Your task to perform on an android device: Go to battery settings Image 0: 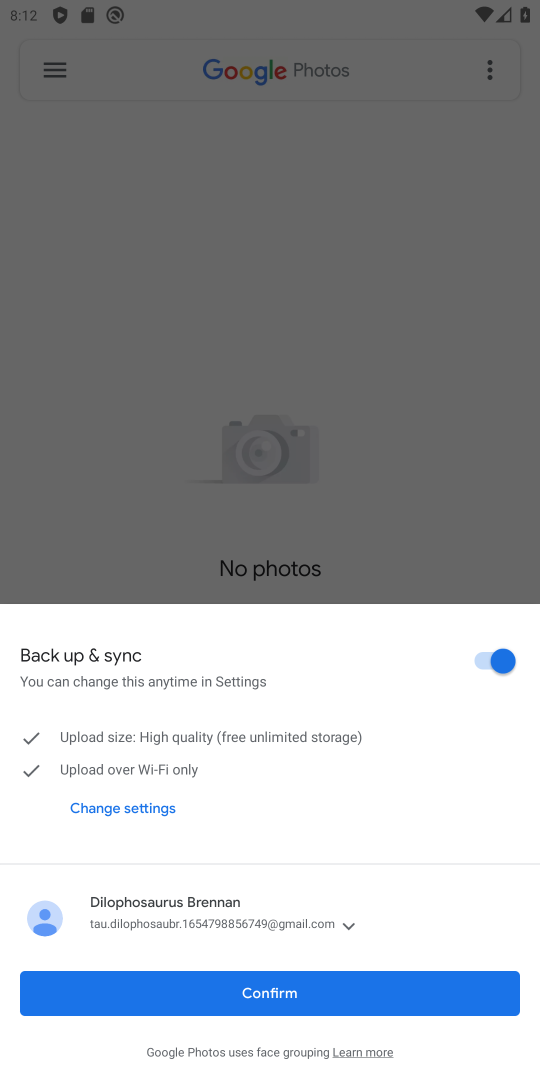
Step 0: press home button
Your task to perform on an android device: Go to battery settings Image 1: 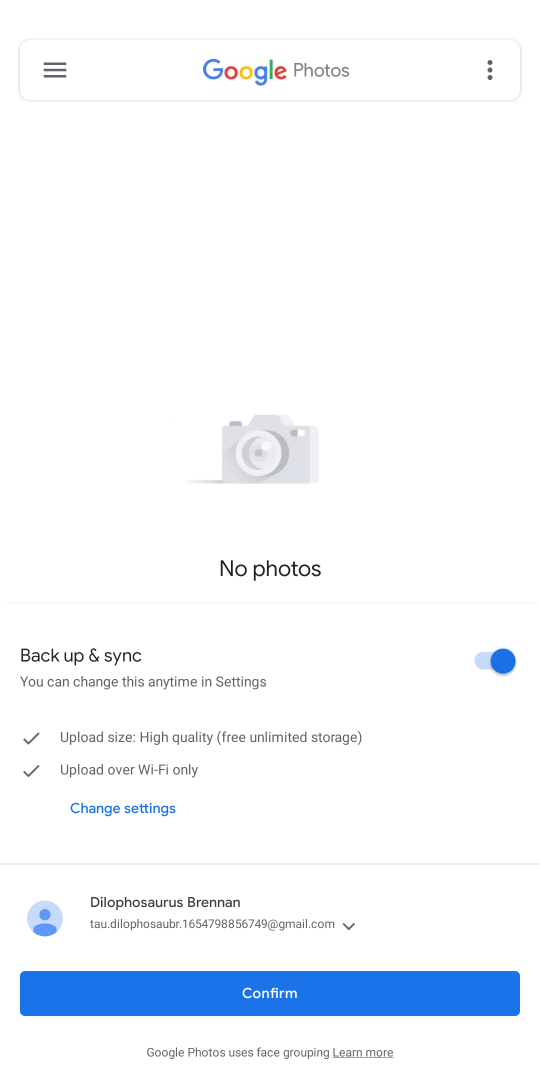
Step 1: drag from (323, 822) to (427, 285)
Your task to perform on an android device: Go to battery settings Image 2: 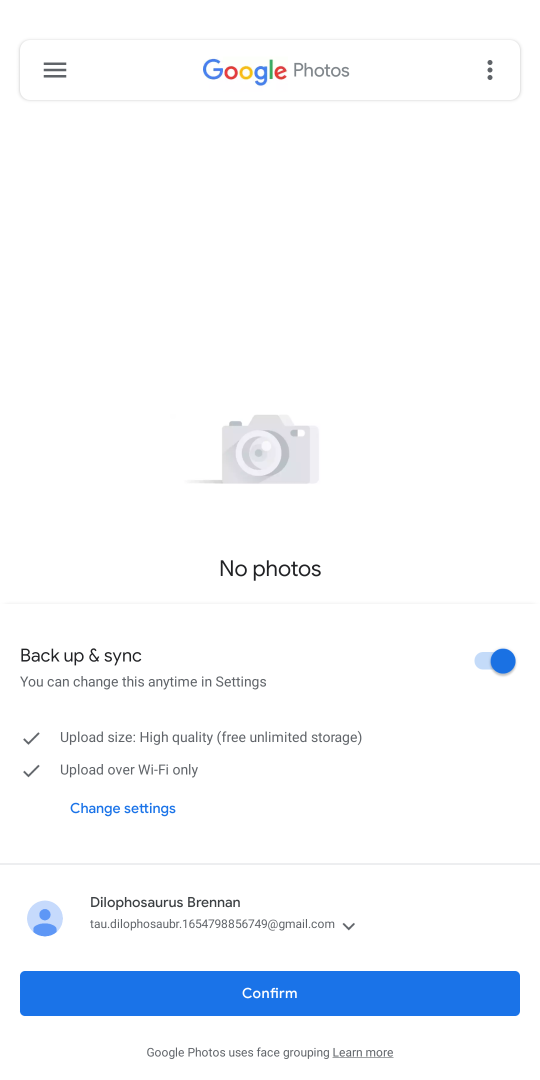
Step 2: drag from (285, 908) to (374, 306)
Your task to perform on an android device: Go to battery settings Image 3: 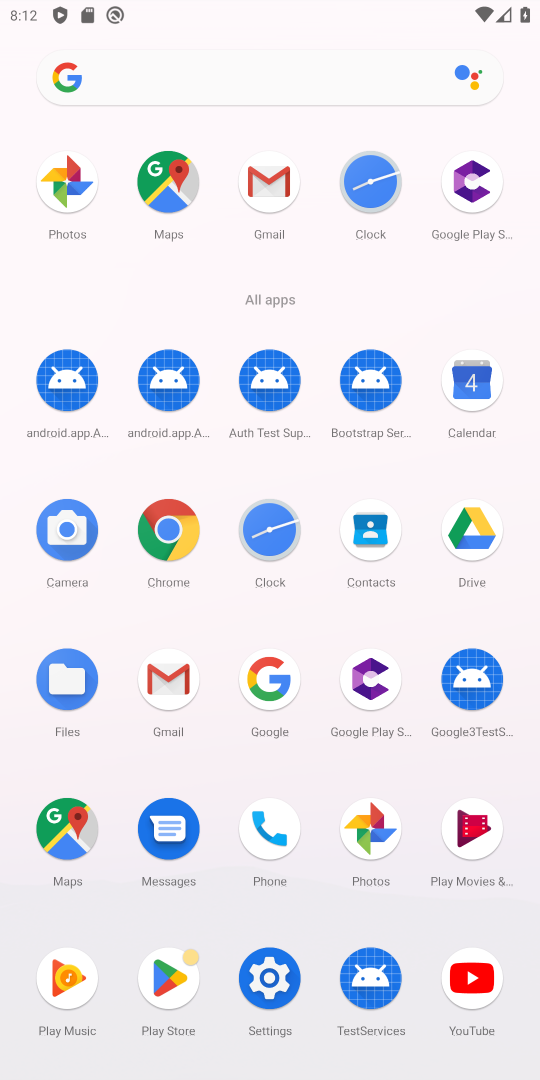
Step 3: drag from (261, 920) to (386, 246)
Your task to perform on an android device: Go to battery settings Image 4: 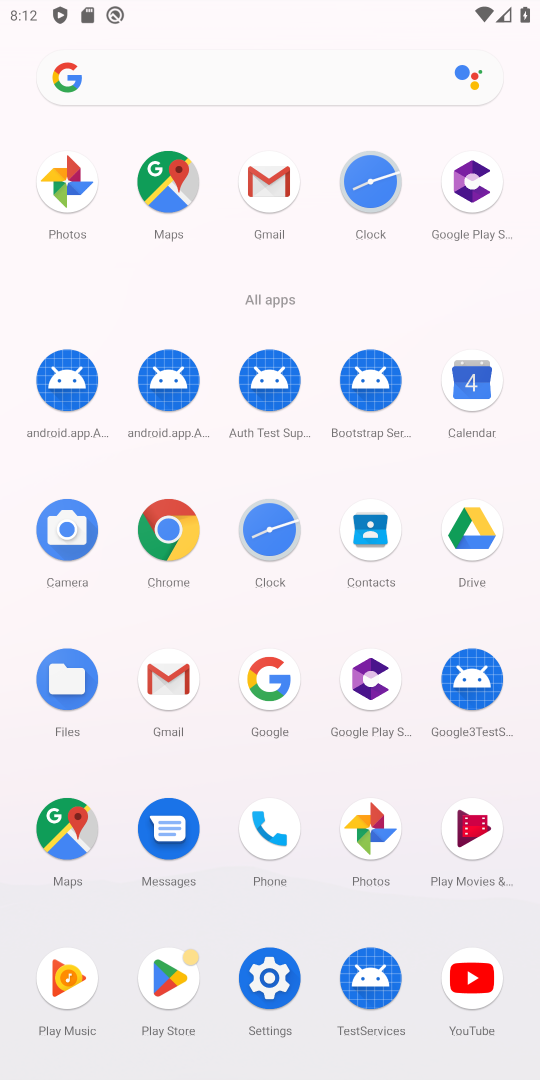
Step 4: click (274, 979)
Your task to perform on an android device: Go to battery settings Image 5: 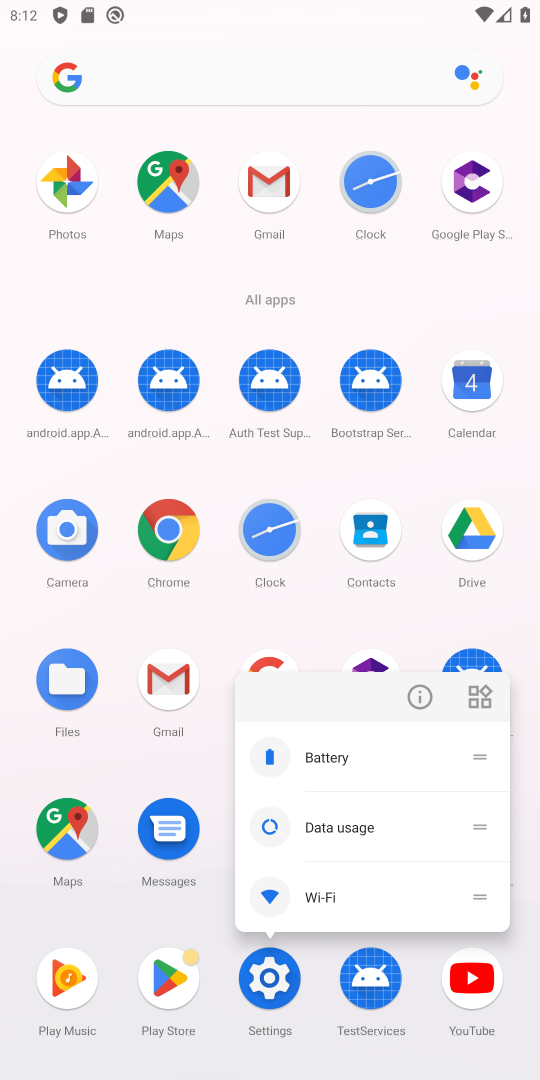
Step 5: click (414, 702)
Your task to perform on an android device: Go to battery settings Image 6: 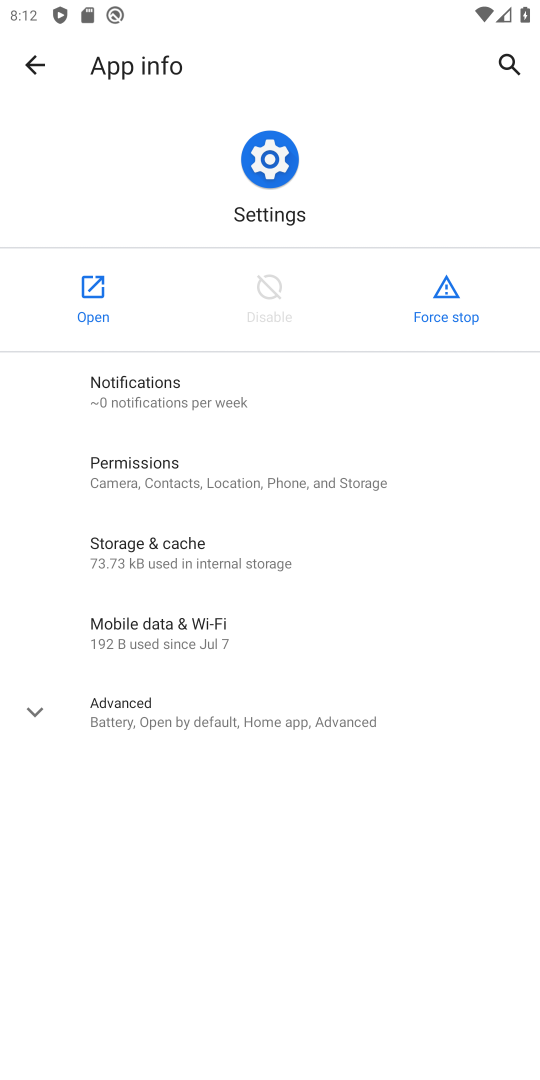
Step 6: click (89, 314)
Your task to perform on an android device: Go to battery settings Image 7: 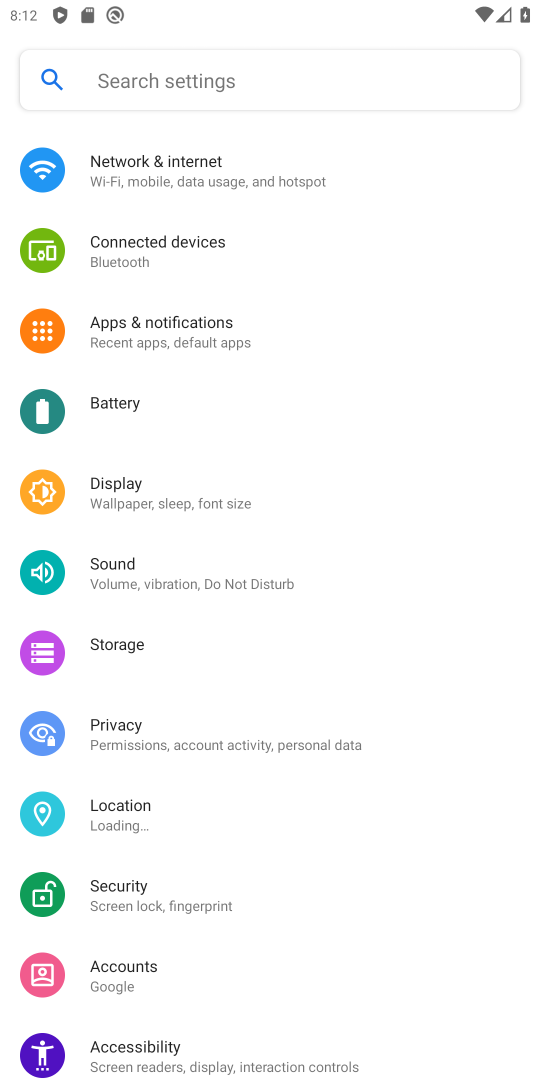
Step 7: click (142, 402)
Your task to perform on an android device: Go to battery settings Image 8: 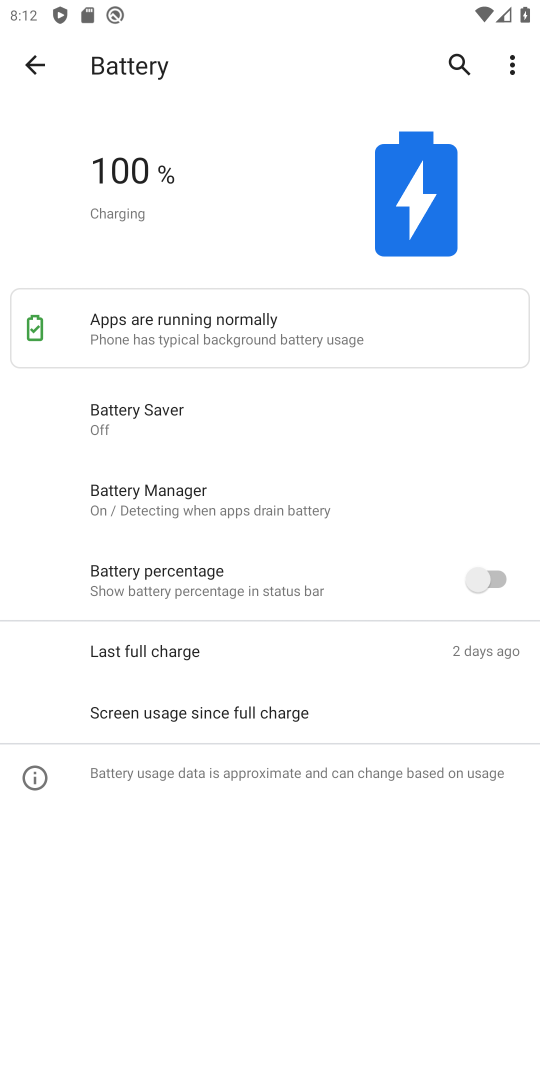
Step 8: click (116, 405)
Your task to perform on an android device: Go to battery settings Image 9: 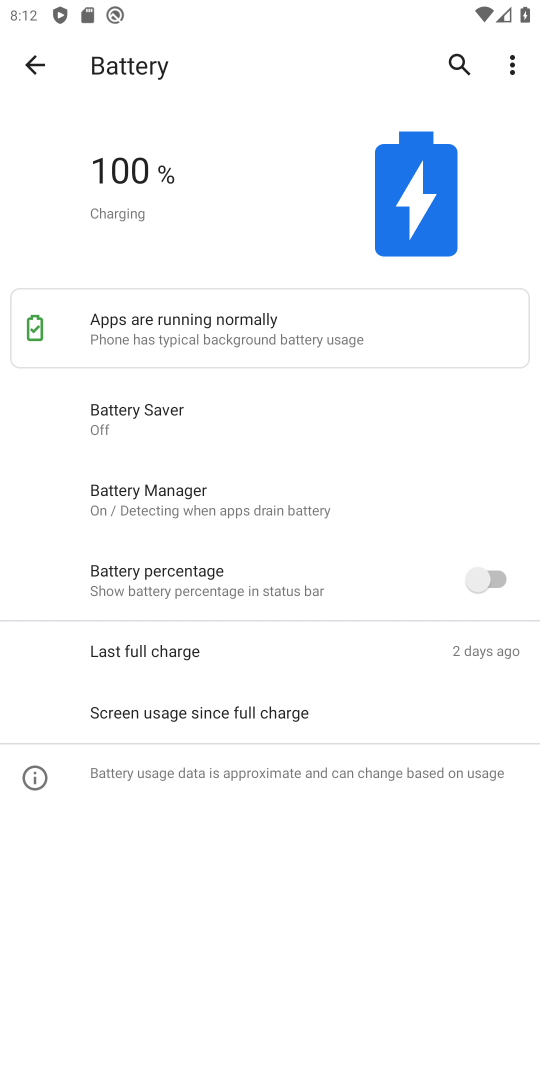
Step 9: task complete